Your task to perform on an android device: Open Chrome and go to settings Image 0: 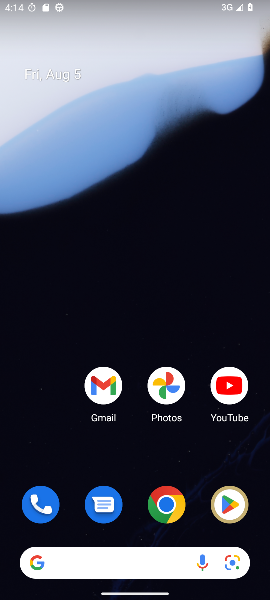
Step 0: click (162, 504)
Your task to perform on an android device: Open Chrome and go to settings Image 1: 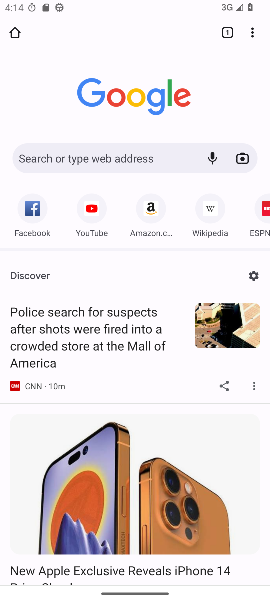
Step 1: click (254, 29)
Your task to perform on an android device: Open Chrome and go to settings Image 2: 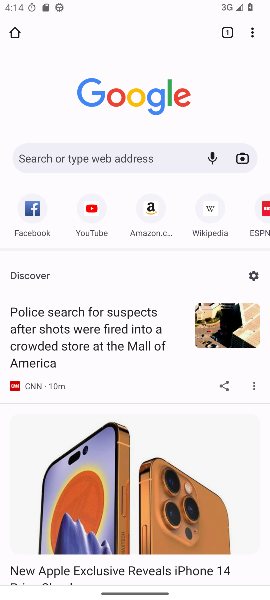
Step 2: click (251, 29)
Your task to perform on an android device: Open Chrome and go to settings Image 3: 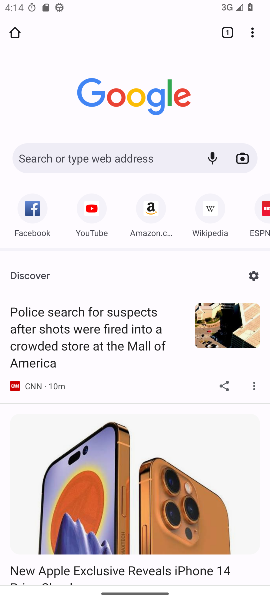
Step 3: click (250, 30)
Your task to perform on an android device: Open Chrome and go to settings Image 4: 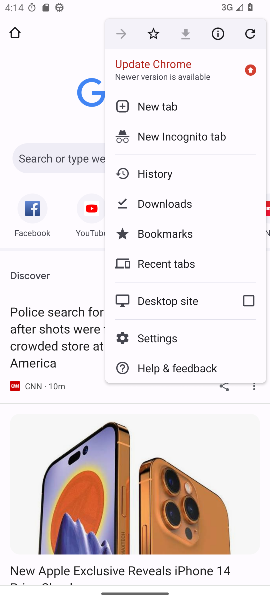
Step 4: click (152, 338)
Your task to perform on an android device: Open Chrome and go to settings Image 5: 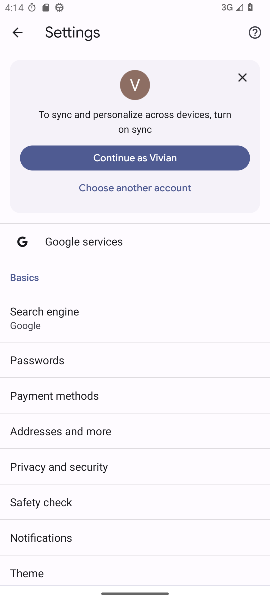
Step 5: task complete